Your task to perform on an android device: What's the weather? Image 0: 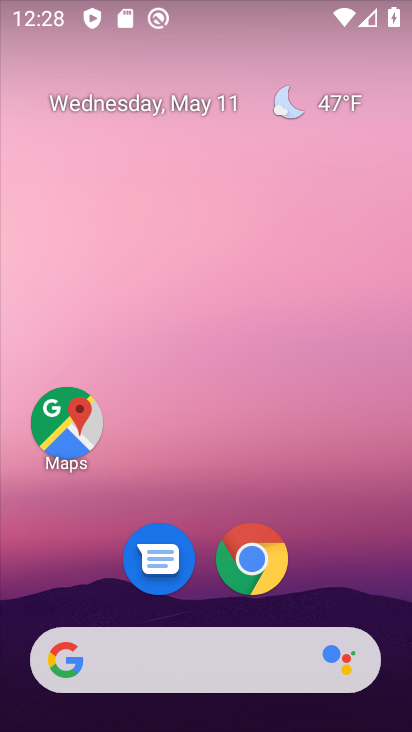
Step 0: drag from (206, 610) to (266, 42)
Your task to perform on an android device: What's the weather? Image 1: 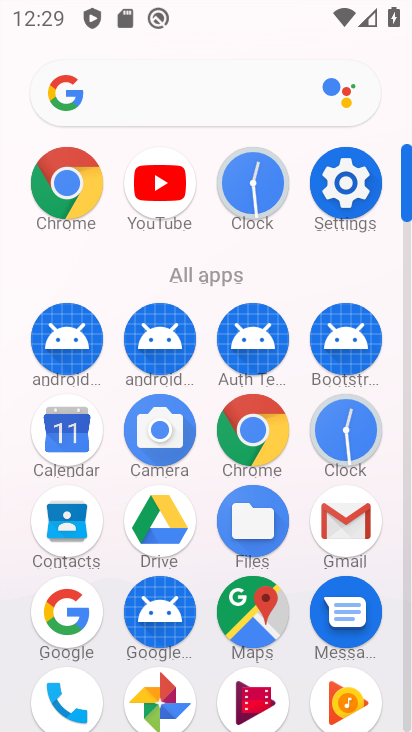
Step 1: click (215, 91)
Your task to perform on an android device: What's the weather? Image 2: 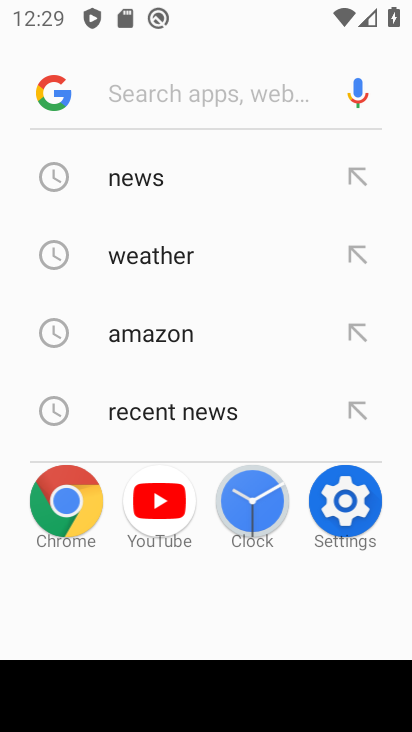
Step 2: click (156, 263)
Your task to perform on an android device: What's the weather? Image 3: 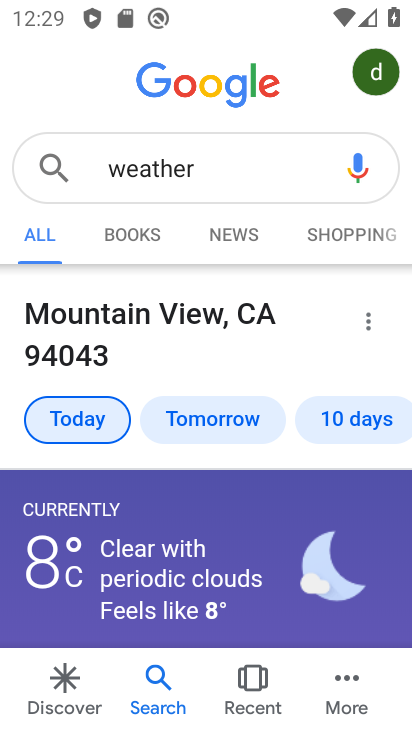
Step 3: task complete